Your task to perform on an android device: Open Yahoo.com Image 0: 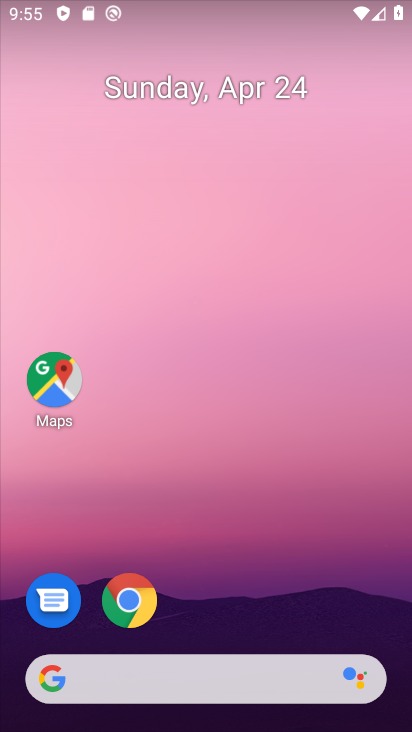
Step 0: click (160, 674)
Your task to perform on an android device: Open Yahoo.com Image 1: 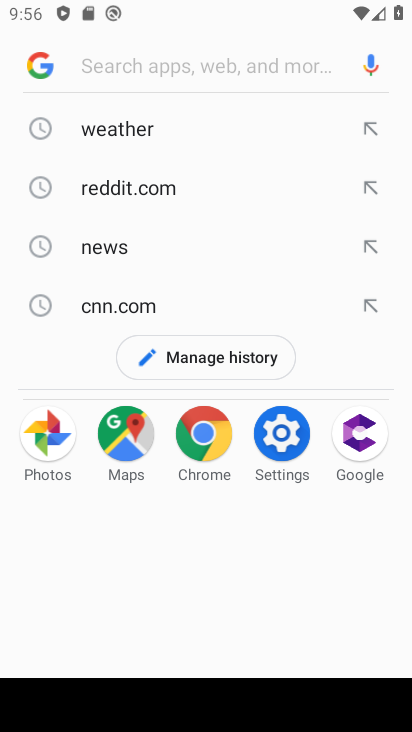
Step 1: type "Yahoo.com"
Your task to perform on an android device: Open Yahoo.com Image 2: 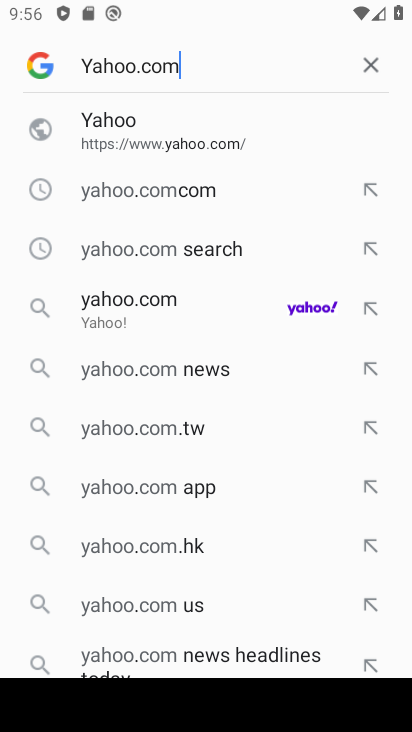
Step 2: click (145, 290)
Your task to perform on an android device: Open Yahoo.com Image 3: 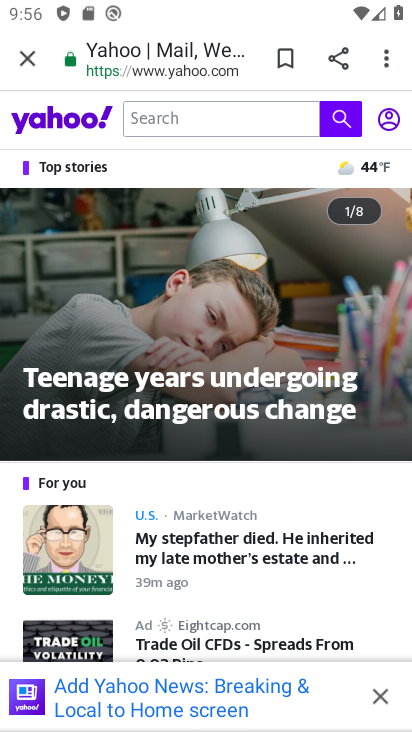
Step 3: task complete